Your task to perform on an android device: turn pop-ups off in chrome Image 0: 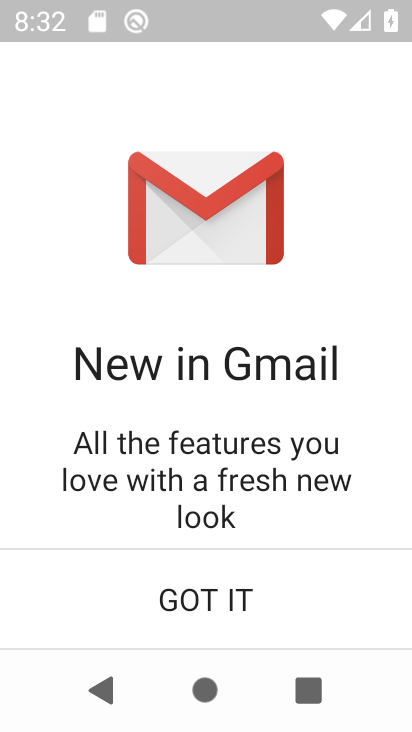
Step 0: click (250, 587)
Your task to perform on an android device: turn pop-ups off in chrome Image 1: 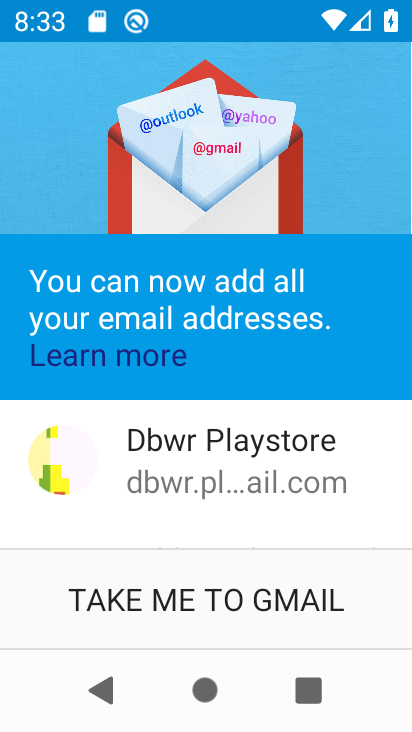
Step 1: press home button
Your task to perform on an android device: turn pop-ups off in chrome Image 2: 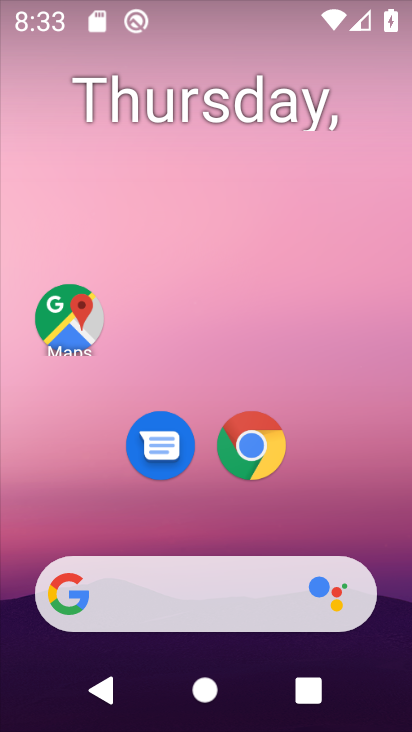
Step 2: click (246, 453)
Your task to perform on an android device: turn pop-ups off in chrome Image 3: 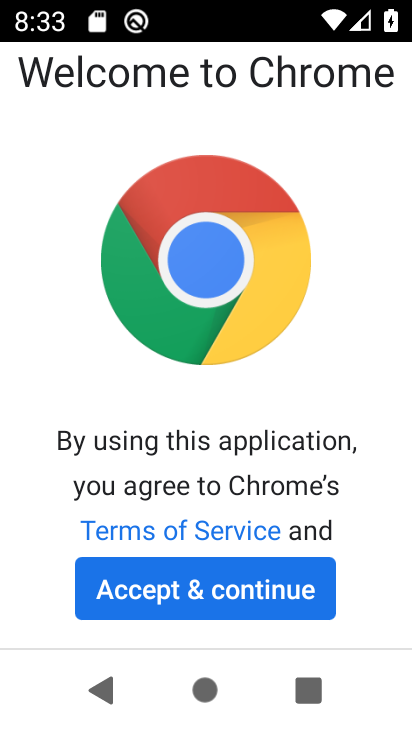
Step 3: click (229, 596)
Your task to perform on an android device: turn pop-ups off in chrome Image 4: 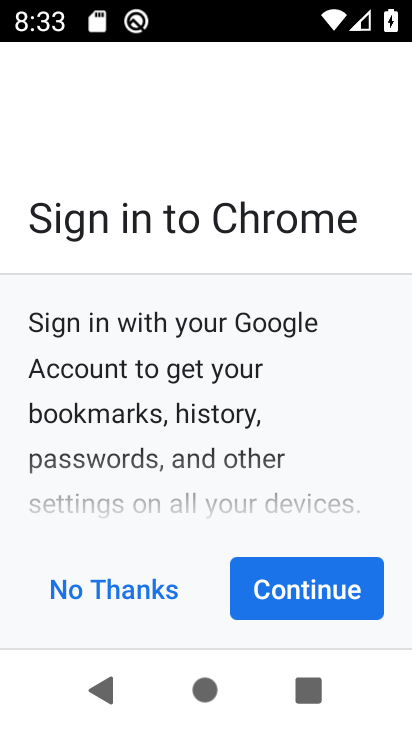
Step 4: click (264, 589)
Your task to perform on an android device: turn pop-ups off in chrome Image 5: 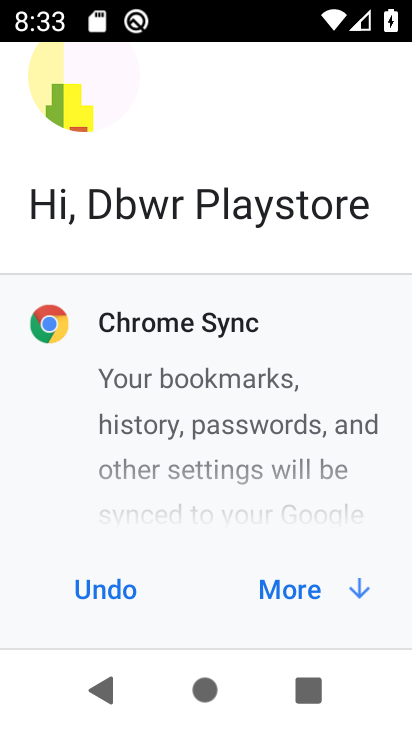
Step 5: click (264, 589)
Your task to perform on an android device: turn pop-ups off in chrome Image 6: 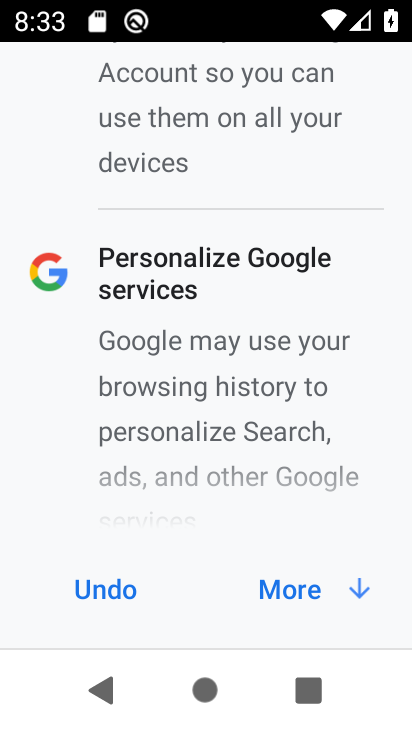
Step 6: click (264, 589)
Your task to perform on an android device: turn pop-ups off in chrome Image 7: 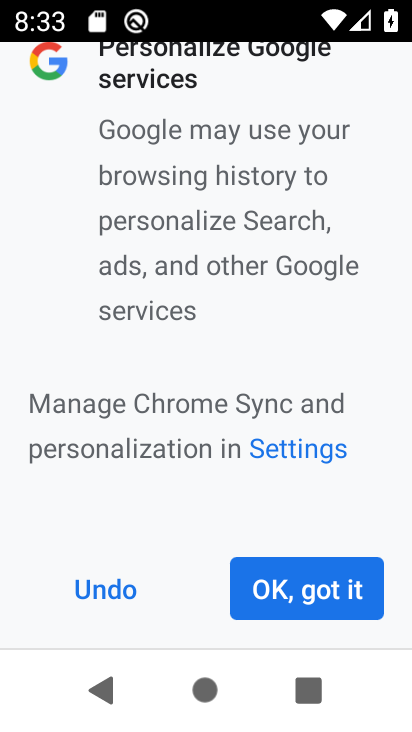
Step 7: click (264, 589)
Your task to perform on an android device: turn pop-ups off in chrome Image 8: 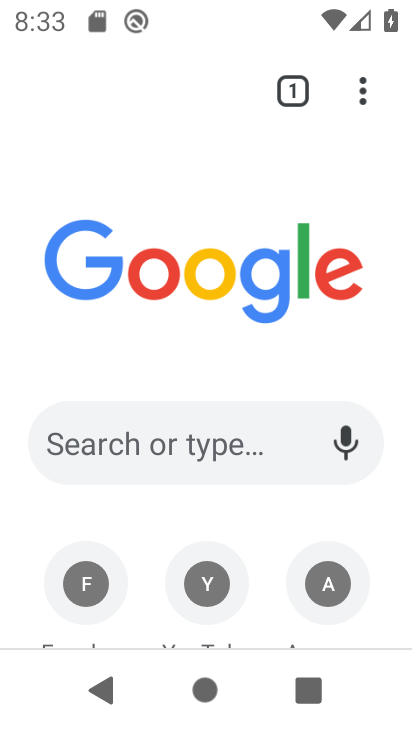
Step 8: click (365, 92)
Your task to perform on an android device: turn pop-ups off in chrome Image 9: 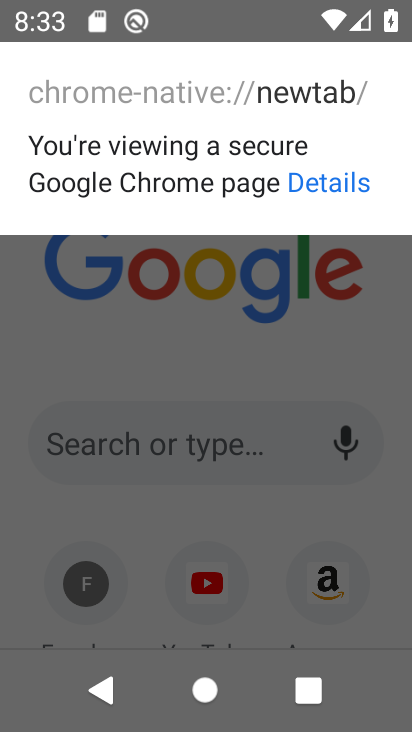
Step 9: click (269, 352)
Your task to perform on an android device: turn pop-ups off in chrome Image 10: 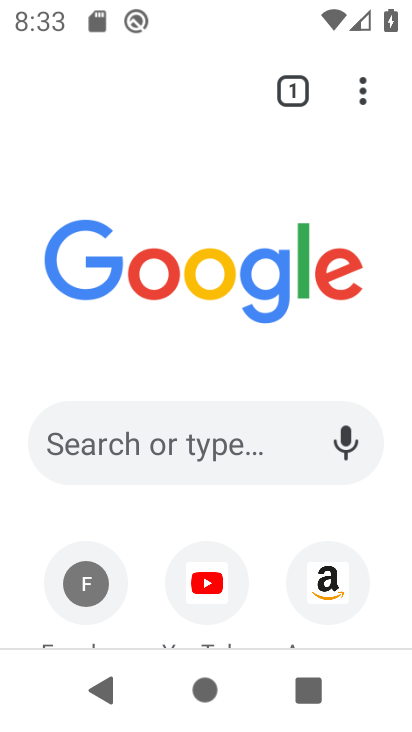
Step 10: click (366, 97)
Your task to perform on an android device: turn pop-ups off in chrome Image 11: 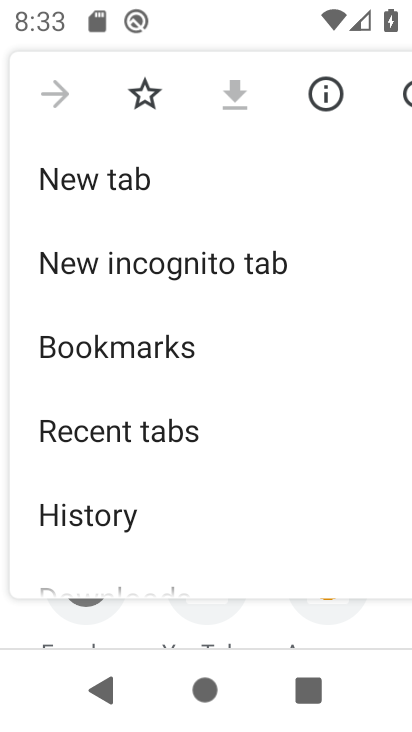
Step 11: drag from (209, 370) to (214, 143)
Your task to perform on an android device: turn pop-ups off in chrome Image 12: 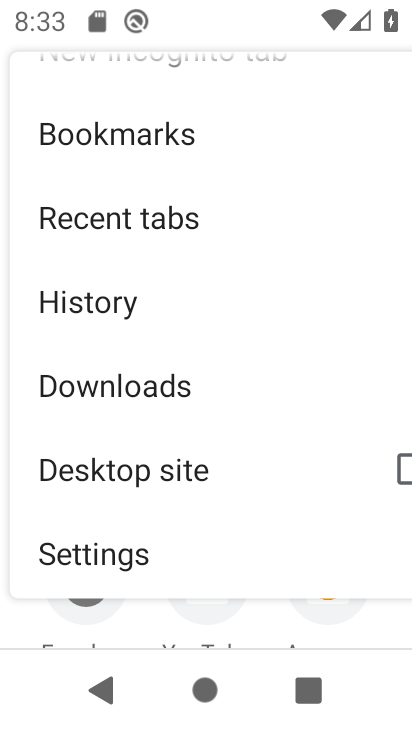
Step 12: click (133, 544)
Your task to perform on an android device: turn pop-ups off in chrome Image 13: 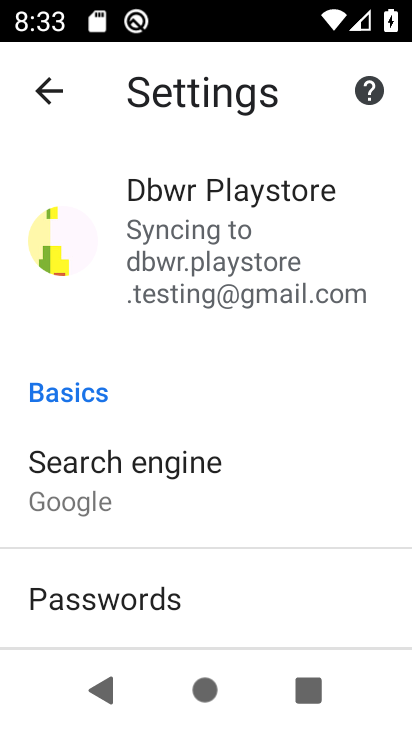
Step 13: drag from (196, 600) to (275, 109)
Your task to perform on an android device: turn pop-ups off in chrome Image 14: 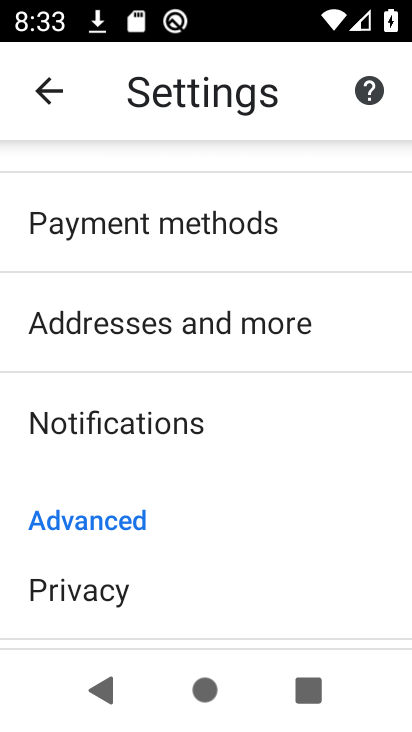
Step 14: drag from (197, 513) to (236, 161)
Your task to perform on an android device: turn pop-ups off in chrome Image 15: 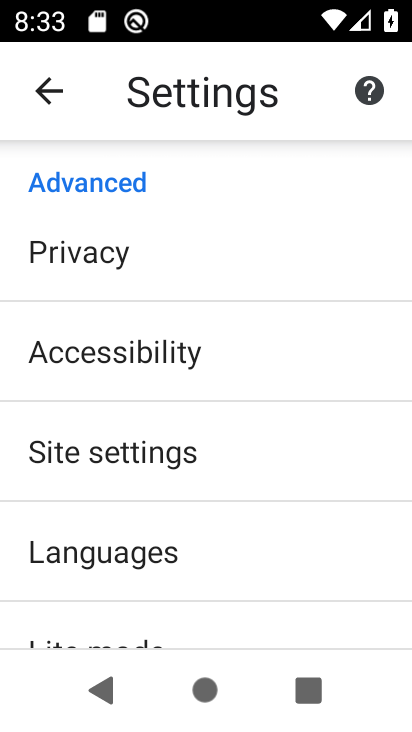
Step 15: click (181, 423)
Your task to perform on an android device: turn pop-ups off in chrome Image 16: 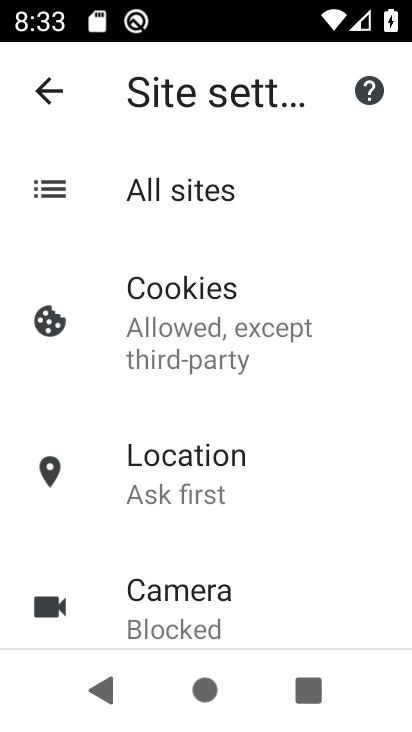
Step 16: drag from (275, 498) to (323, 134)
Your task to perform on an android device: turn pop-ups off in chrome Image 17: 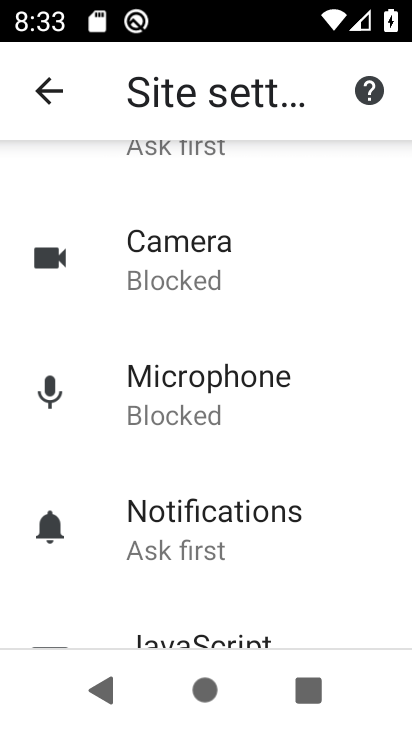
Step 17: drag from (240, 545) to (278, 200)
Your task to perform on an android device: turn pop-ups off in chrome Image 18: 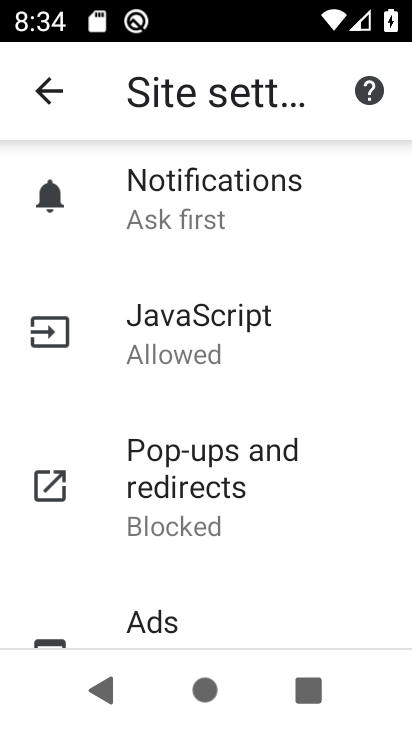
Step 18: click (216, 487)
Your task to perform on an android device: turn pop-ups off in chrome Image 19: 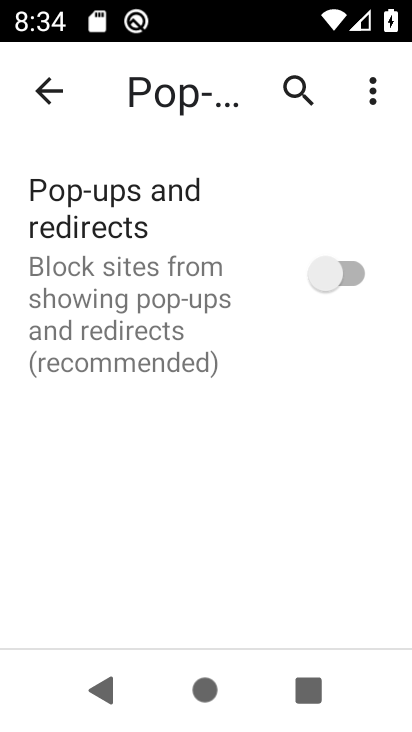
Step 19: task complete